Your task to perform on an android device: Go to Amazon Image 0: 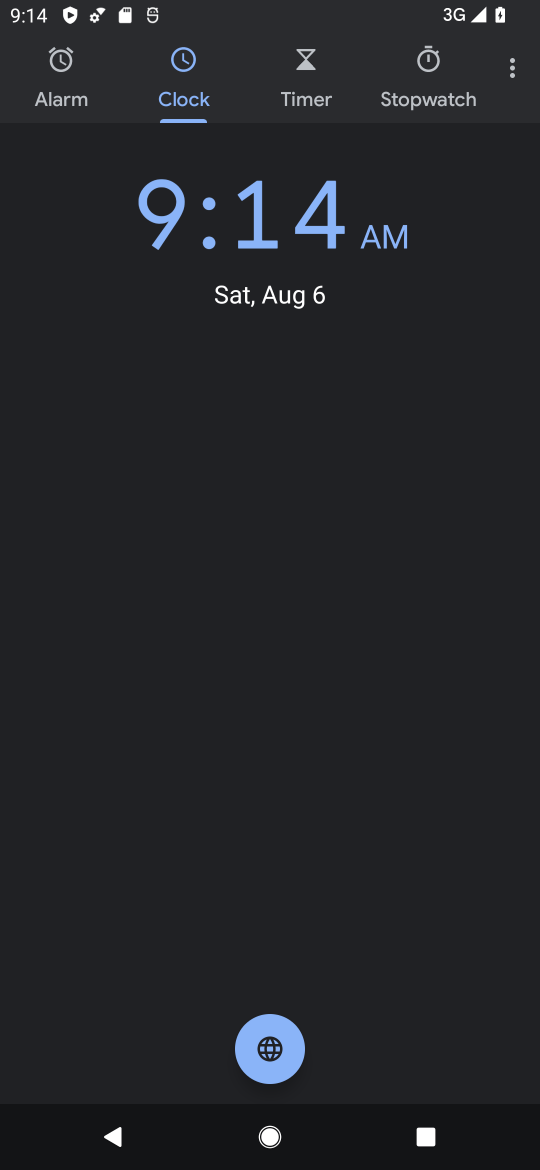
Step 0: press home button
Your task to perform on an android device: Go to Amazon Image 1: 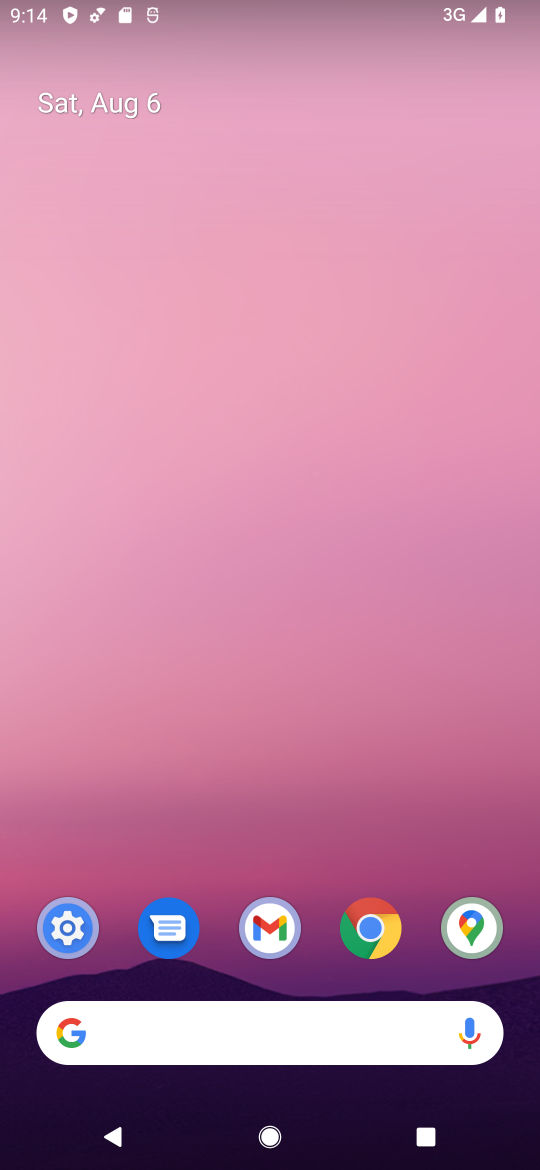
Step 1: click (372, 919)
Your task to perform on an android device: Go to Amazon Image 2: 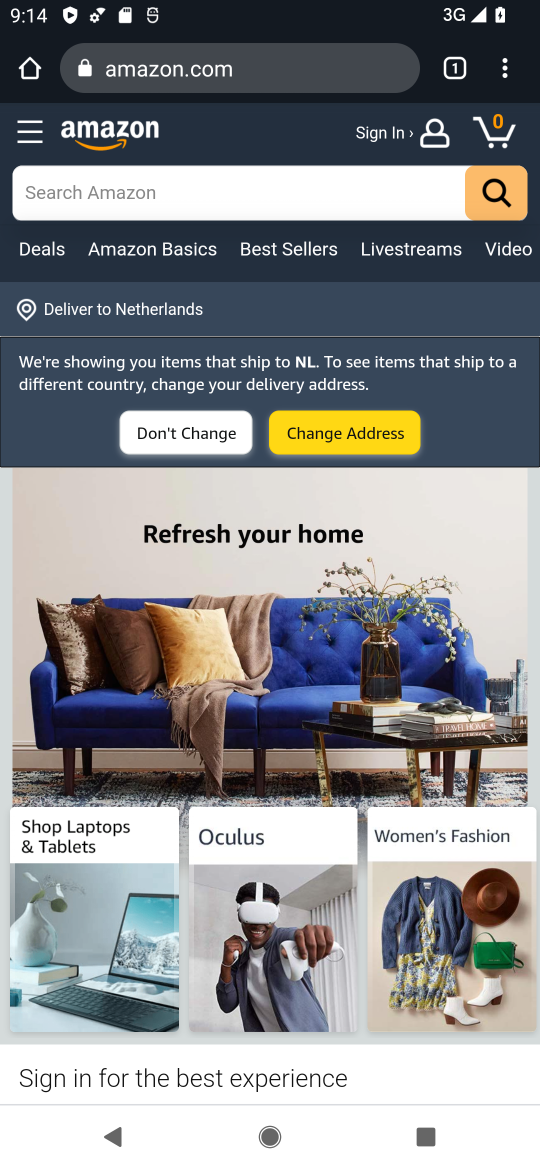
Step 2: task complete